Your task to perform on an android device: Open the calendar app, open the side menu, and click the "Day" option Image 0: 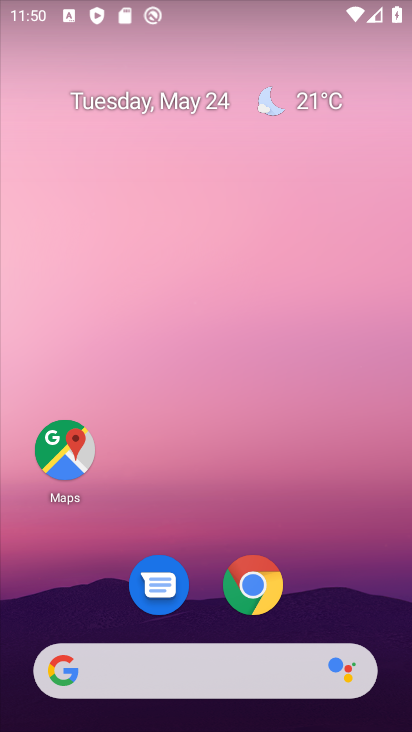
Step 0: drag from (251, 487) to (317, 4)
Your task to perform on an android device: Open the calendar app, open the side menu, and click the "Day" option Image 1: 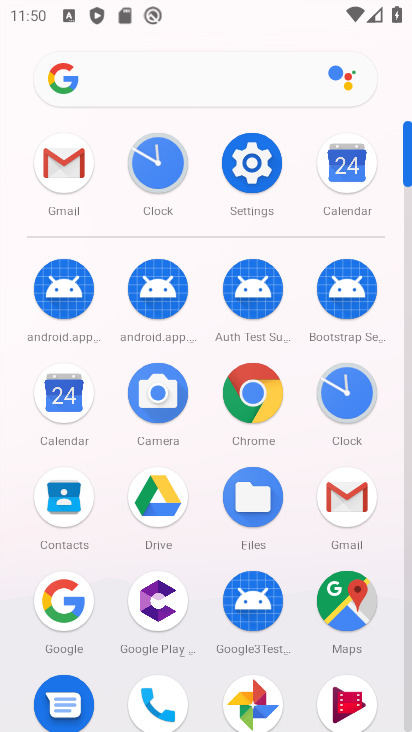
Step 1: click (68, 407)
Your task to perform on an android device: Open the calendar app, open the side menu, and click the "Day" option Image 2: 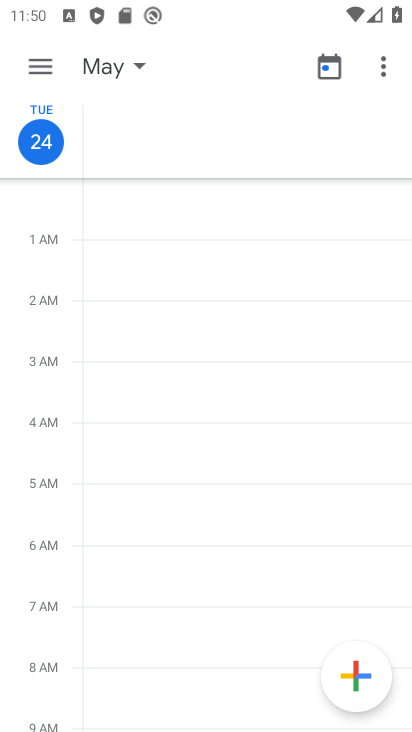
Step 2: task complete